Your task to perform on an android device: set default search engine in the chrome app Image 0: 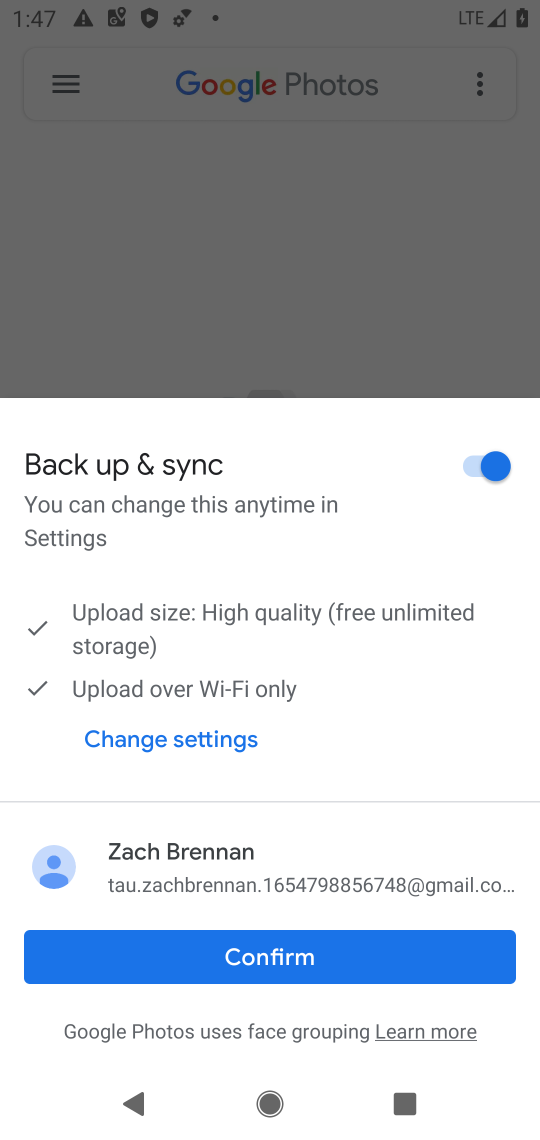
Step 0: press home button
Your task to perform on an android device: set default search engine in the chrome app Image 1: 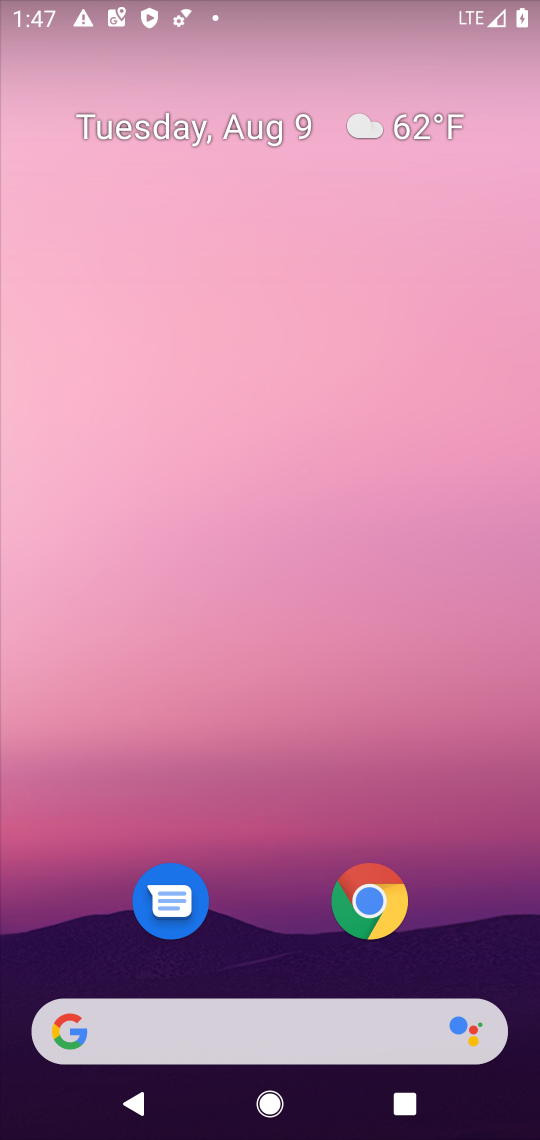
Step 1: click (367, 894)
Your task to perform on an android device: set default search engine in the chrome app Image 2: 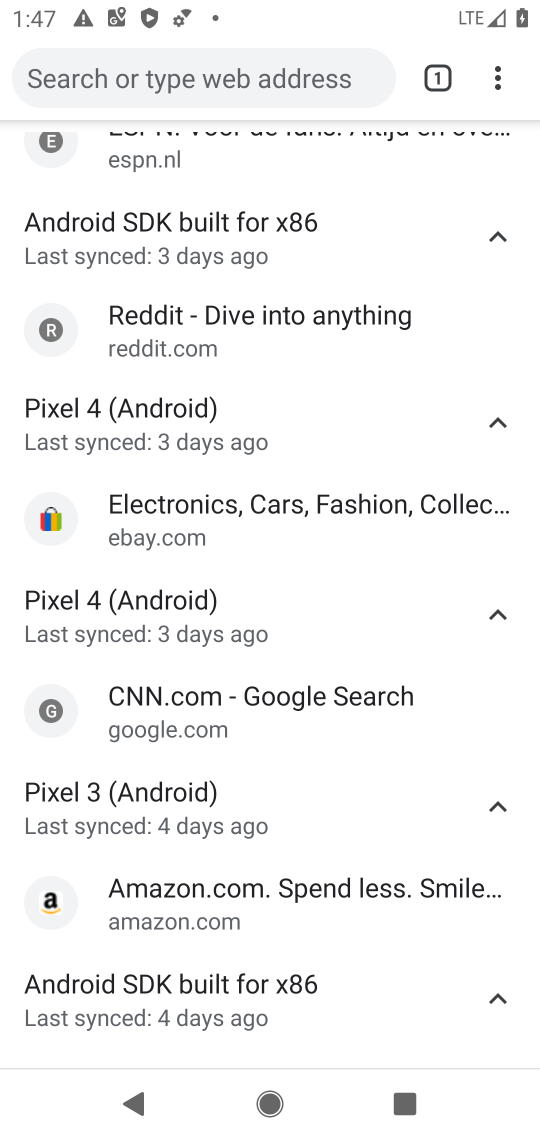
Step 2: click (492, 88)
Your task to perform on an android device: set default search engine in the chrome app Image 3: 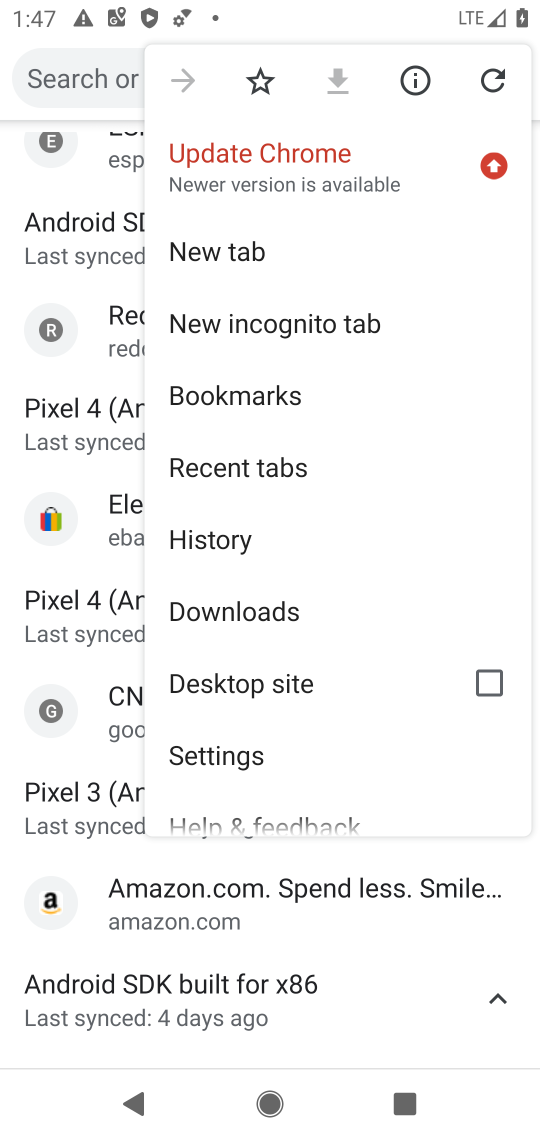
Step 3: click (233, 754)
Your task to perform on an android device: set default search engine in the chrome app Image 4: 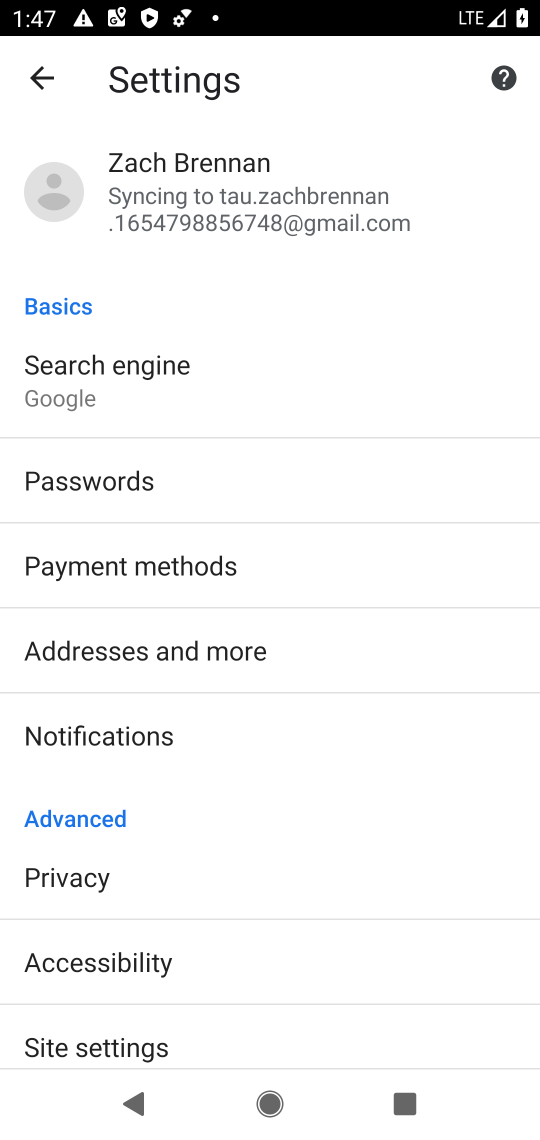
Step 4: click (85, 381)
Your task to perform on an android device: set default search engine in the chrome app Image 5: 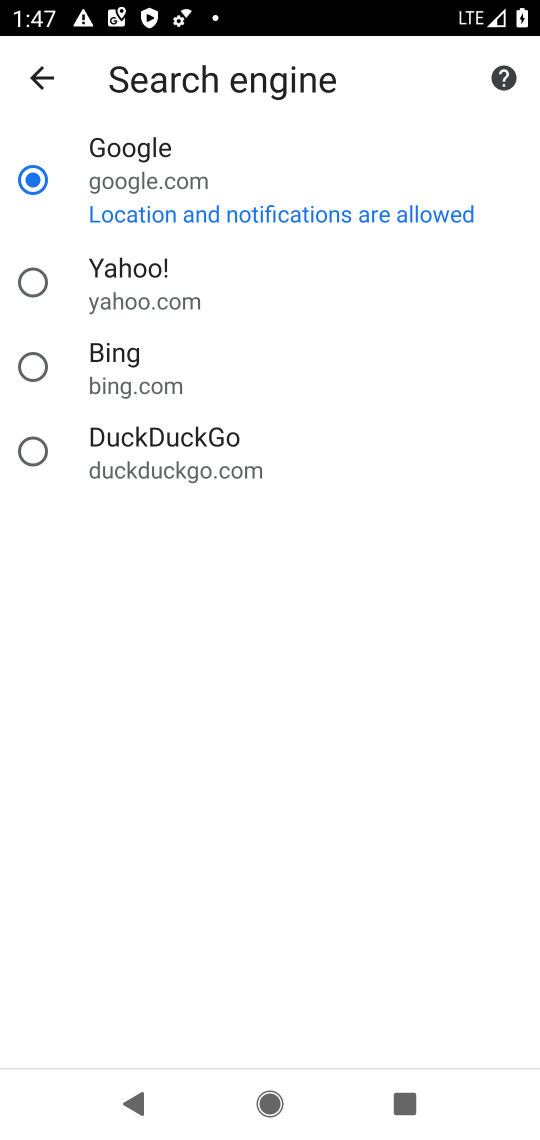
Step 5: click (38, 289)
Your task to perform on an android device: set default search engine in the chrome app Image 6: 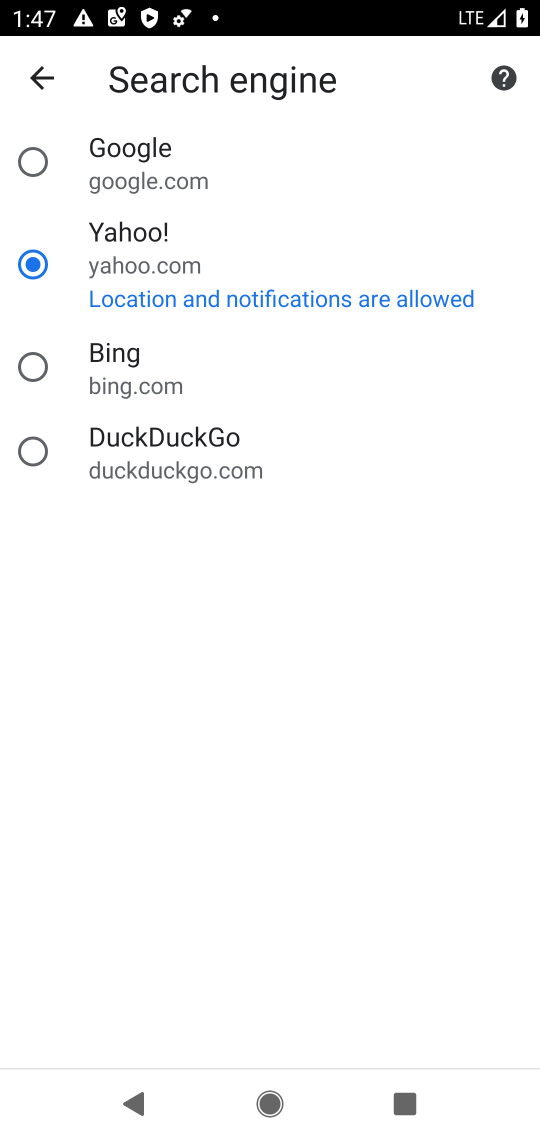
Step 6: task complete